Your task to perform on an android device: Go to notification settings Image 0: 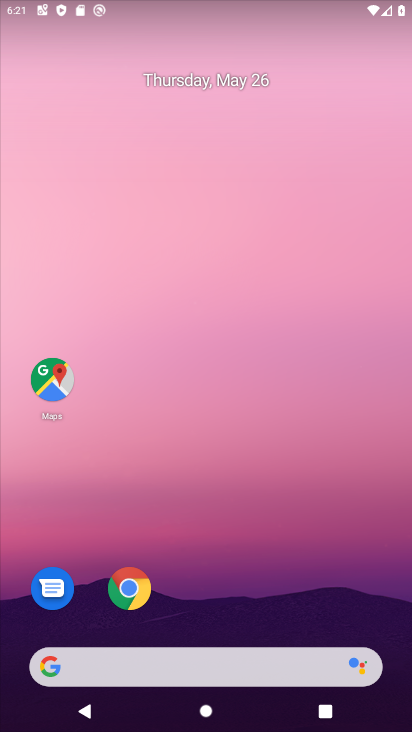
Step 0: drag from (299, 576) to (217, 168)
Your task to perform on an android device: Go to notification settings Image 1: 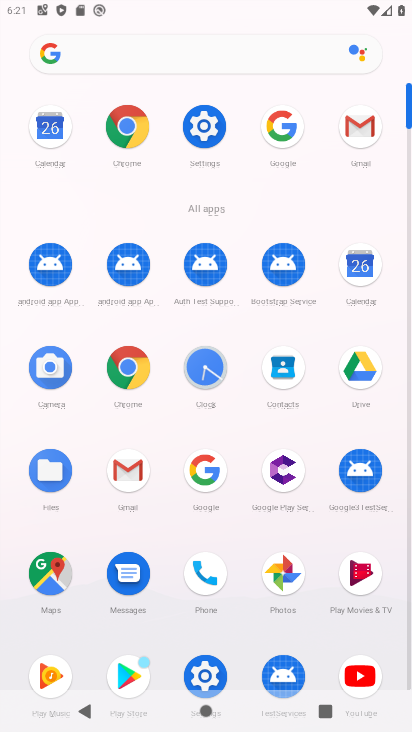
Step 1: click (213, 669)
Your task to perform on an android device: Go to notification settings Image 2: 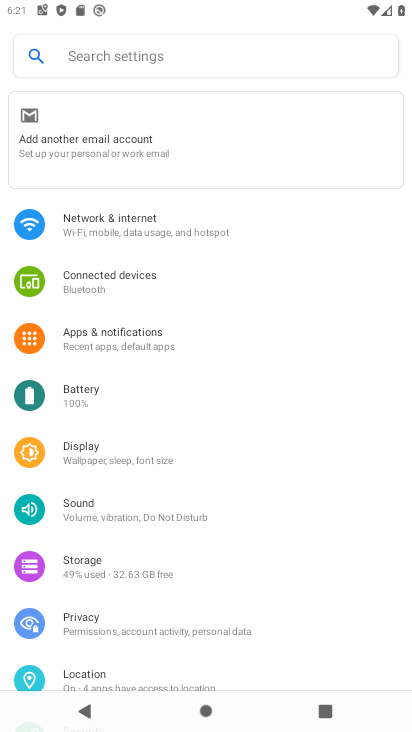
Step 2: click (136, 347)
Your task to perform on an android device: Go to notification settings Image 3: 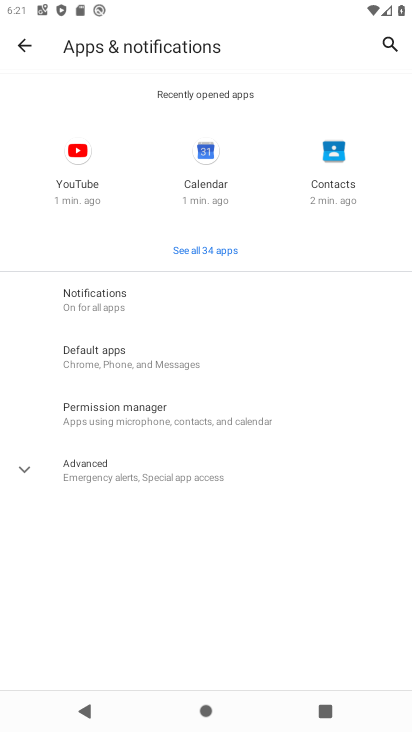
Step 3: click (202, 308)
Your task to perform on an android device: Go to notification settings Image 4: 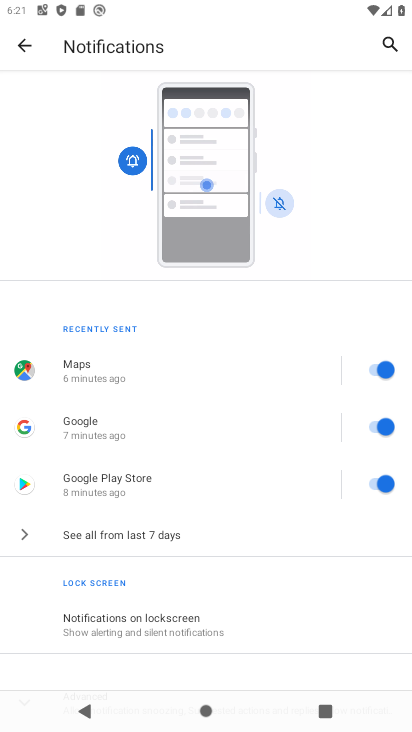
Step 4: task complete